Your task to perform on an android device: set an alarm Image 0: 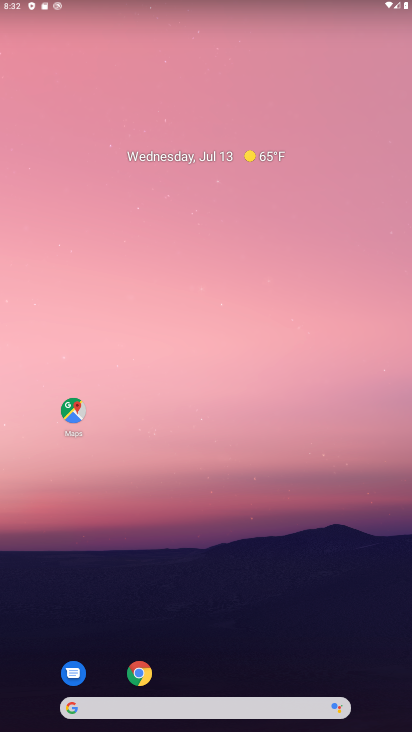
Step 0: drag from (214, 700) to (232, 254)
Your task to perform on an android device: set an alarm Image 1: 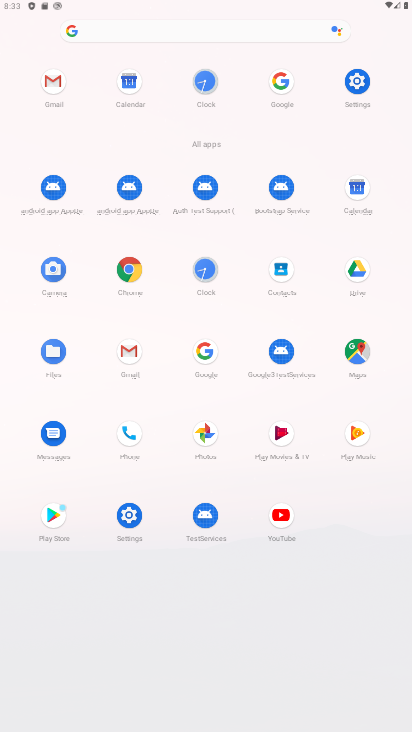
Step 1: click (206, 268)
Your task to perform on an android device: set an alarm Image 2: 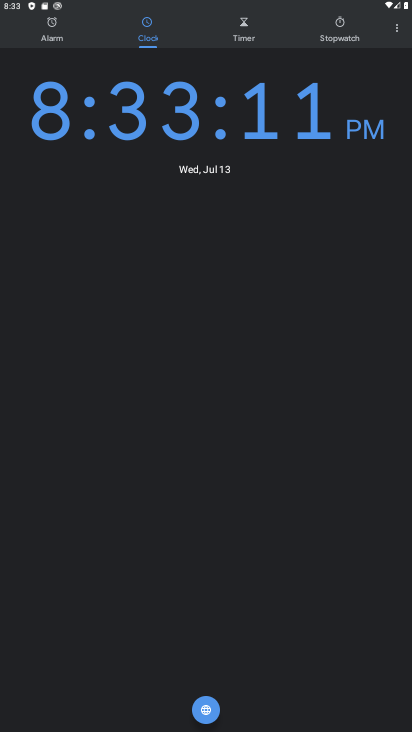
Step 2: click (54, 23)
Your task to perform on an android device: set an alarm Image 3: 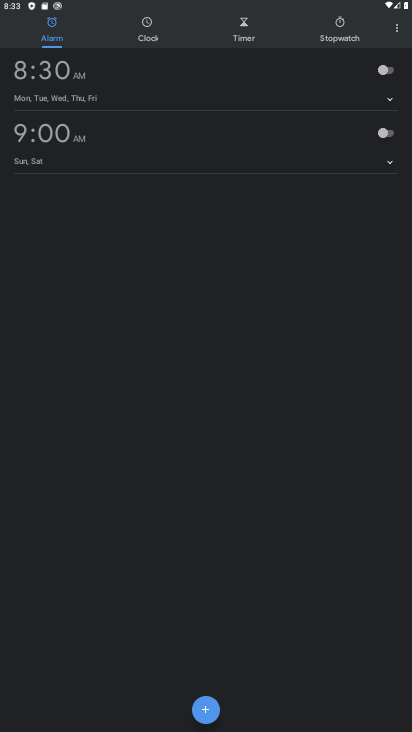
Step 3: click (207, 712)
Your task to perform on an android device: set an alarm Image 4: 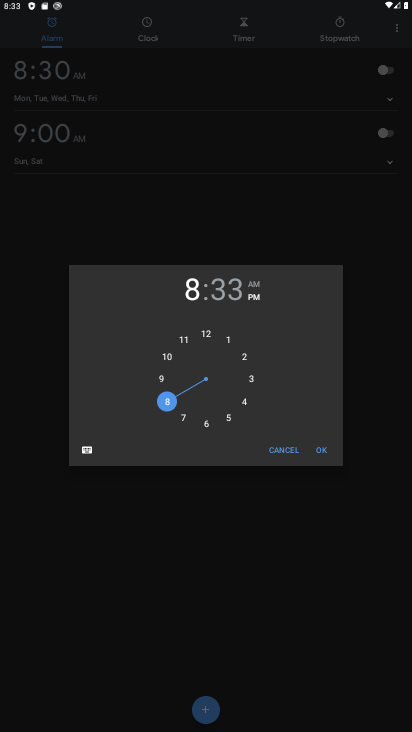
Step 4: click (204, 422)
Your task to perform on an android device: set an alarm Image 5: 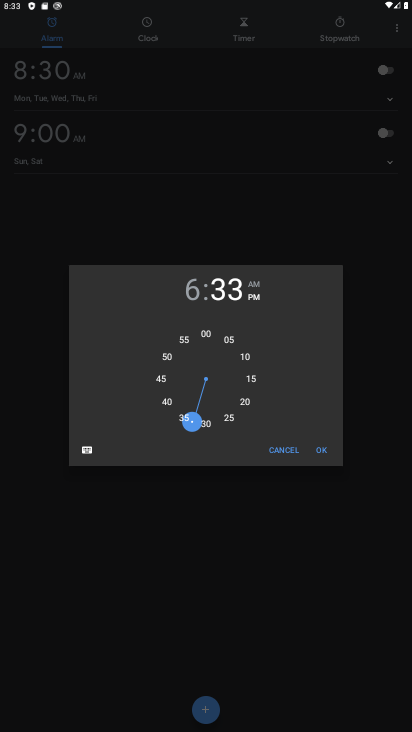
Step 5: click (204, 422)
Your task to perform on an android device: set an alarm Image 6: 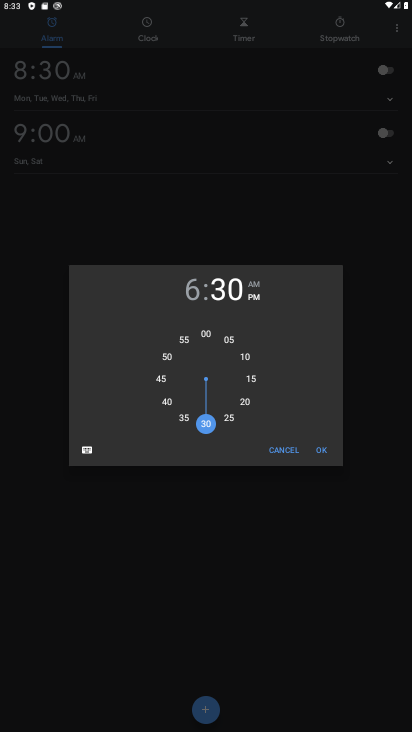
Step 6: click (256, 285)
Your task to perform on an android device: set an alarm Image 7: 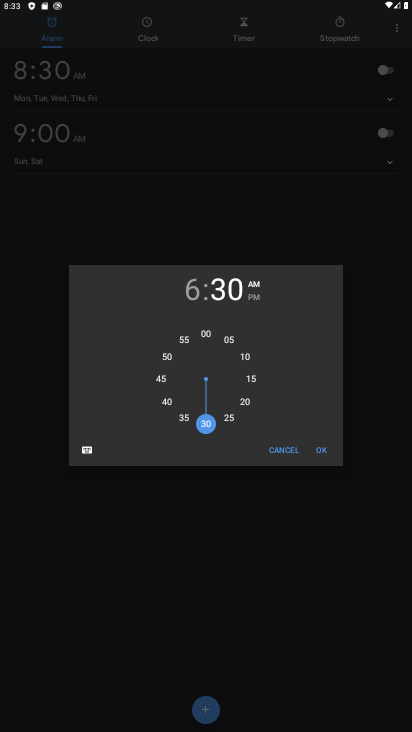
Step 7: click (323, 451)
Your task to perform on an android device: set an alarm Image 8: 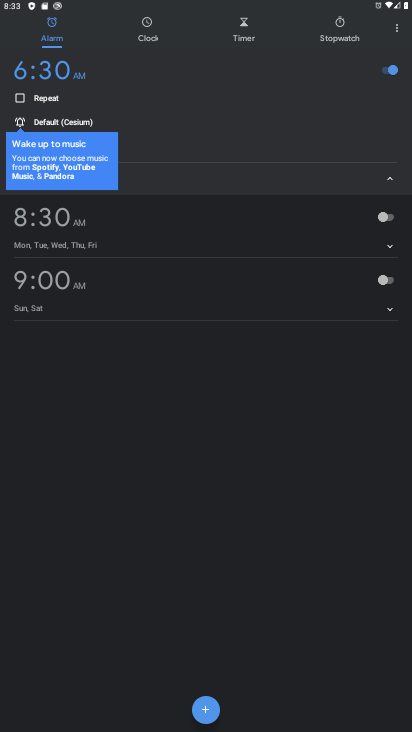
Step 8: task complete